Your task to perform on an android device: turn on notifications settings in the gmail app Image 0: 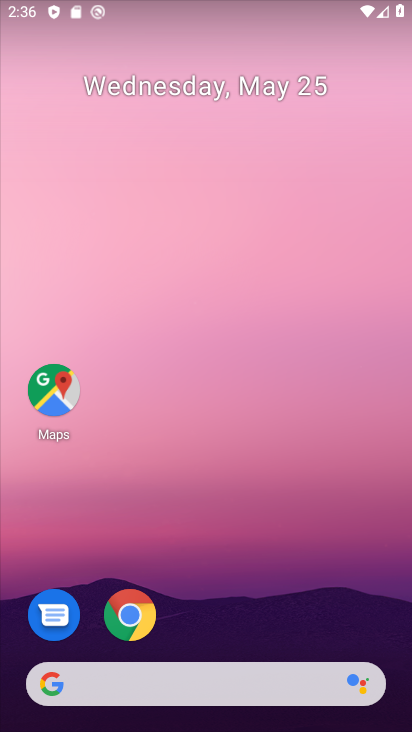
Step 0: drag from (245, 605) to (215, 81)
Your task to perform on an android device: turn on notifications settings in the gmail app Image 1: 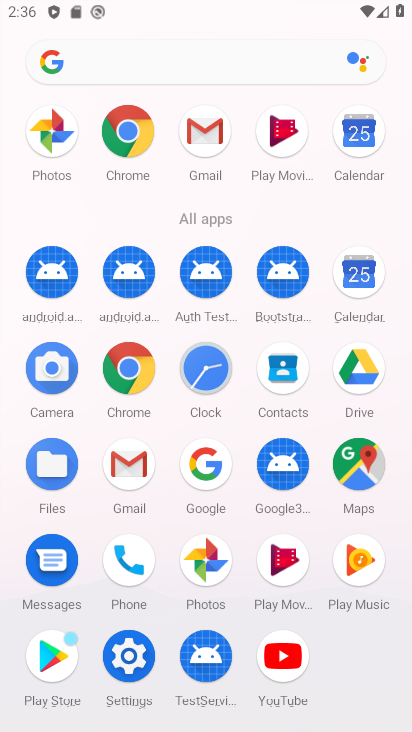
Step 1: click (204, 128)
Your task to perform on an android device: turn on notifications settings in the gmail app Image 2: 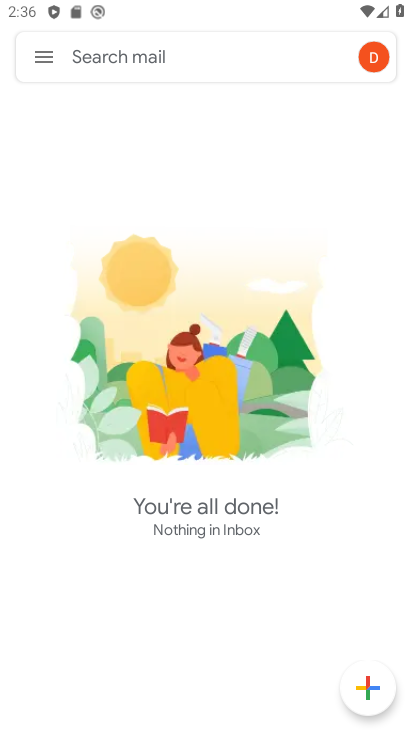
Step 2: click (41, 60)
Your task to perform on an android device: turn on notifications settings in the gmail app Image 3: 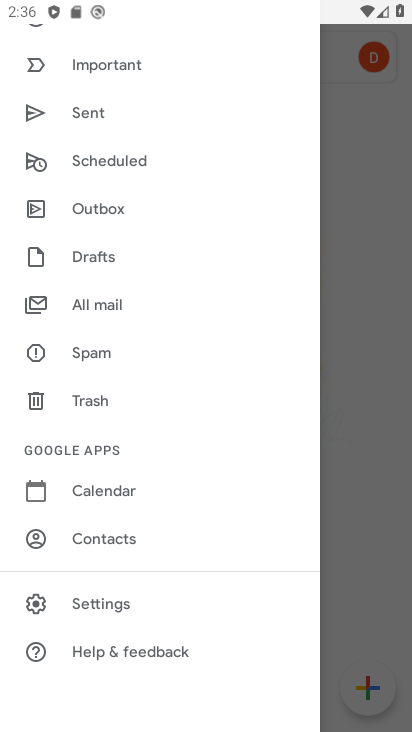
Step 3: click (128, 181)
Your task to perform on an android device: turn on notifications settings in the gmail app Image 4: 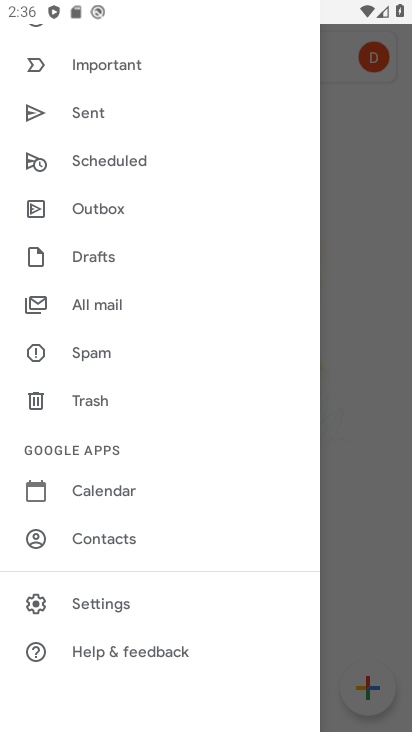
Step 4: click (109, 598)
Your task to perform on an android device: turn on notifications settings in the gmail app Image 5: 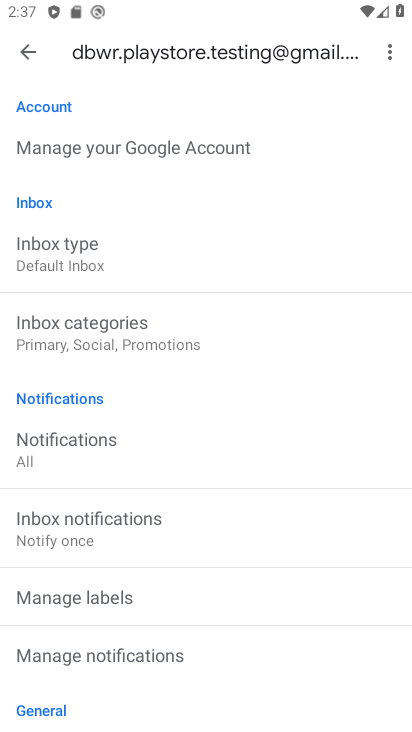
Step 5: drag from (190, 590) to (163, 402)
Your task to perform on an android device: turn on notifications settings in the gmail app Image 6: 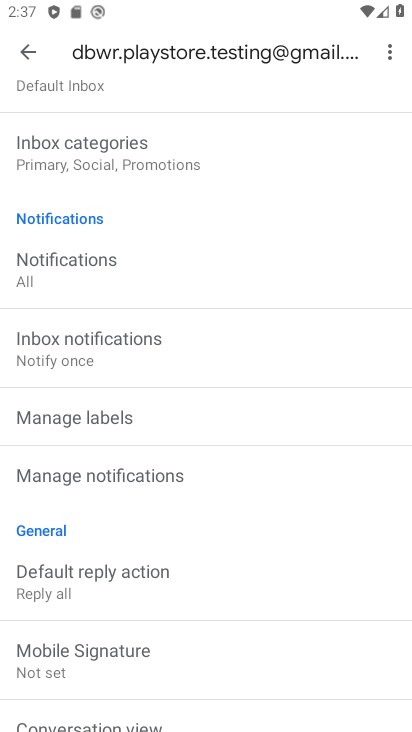
Step 6: click (100, 476)
Your task to perform on an android device: turn on notifications settings in the gmail app Image 7: 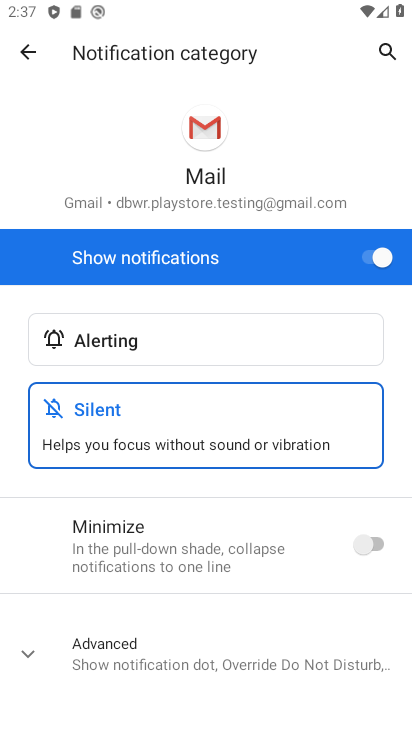
Step 7: task complete